Your task to perform on an android device: Open my contact list Image 0: 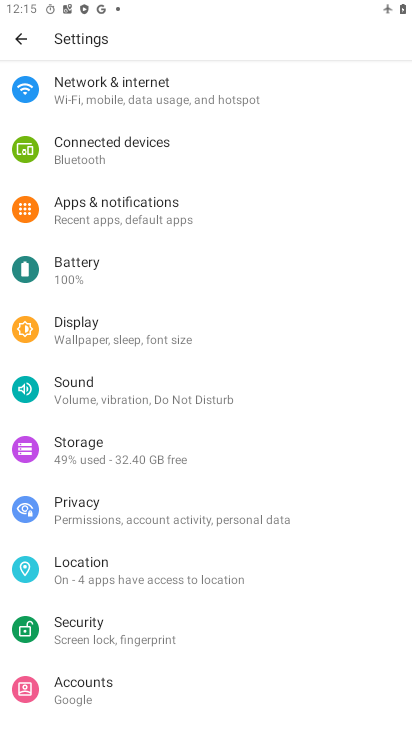
Step 0: drag from (211, 588) to (240, 337)
Your task to perform on an android device: Open my contact list Image 1: 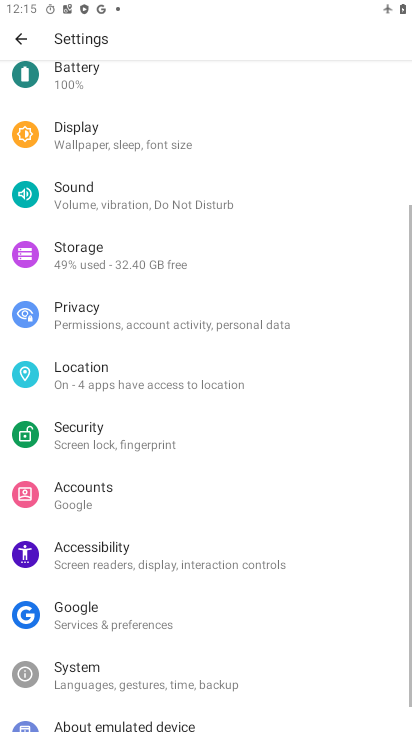
Step 1: press home button
Your task to perform on an android device: Open my contact list Image 2: 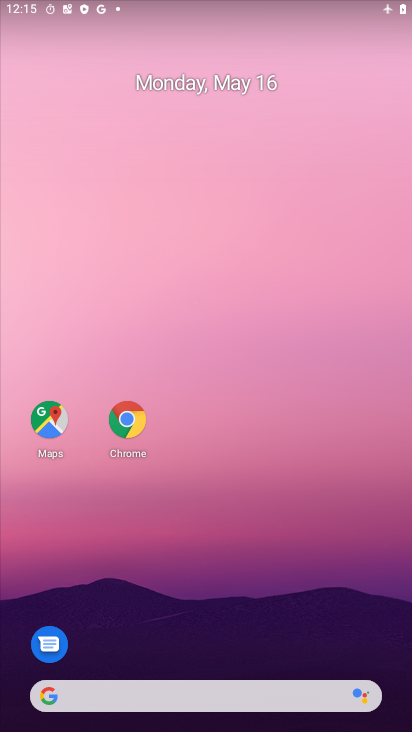
Step 2: drag from (225, 624) to (276, 189)
Your task to perform on an android device: Open my contact list Image 3: 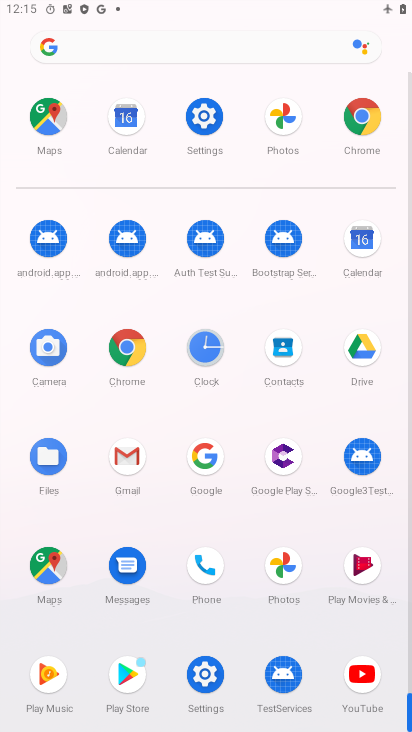
Step 3: click (275, 347)
Your task to perform on an android device: Open my contact list Image 4: 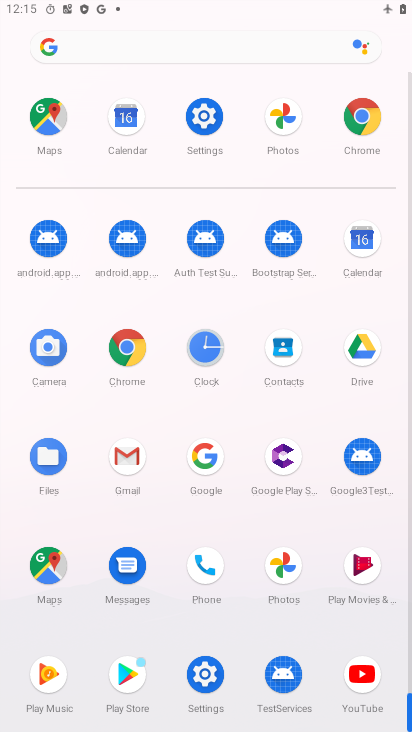
Step 4: click (274, 348)
Your task to perform on an android device: Open my contact list Image 5: 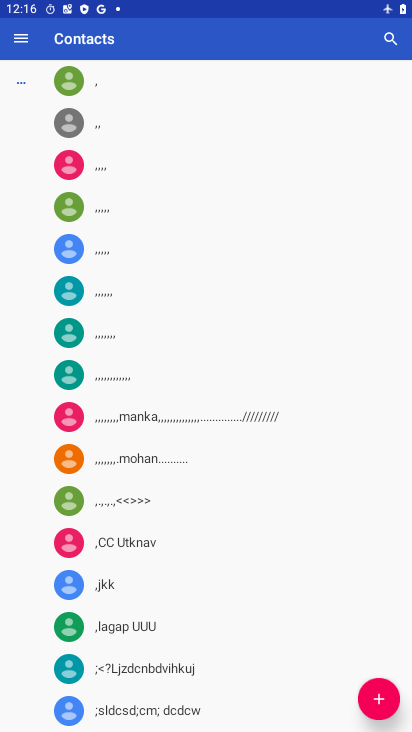
Step 5: task complete